Your task to perform on an android device: Check the weather Image 0: 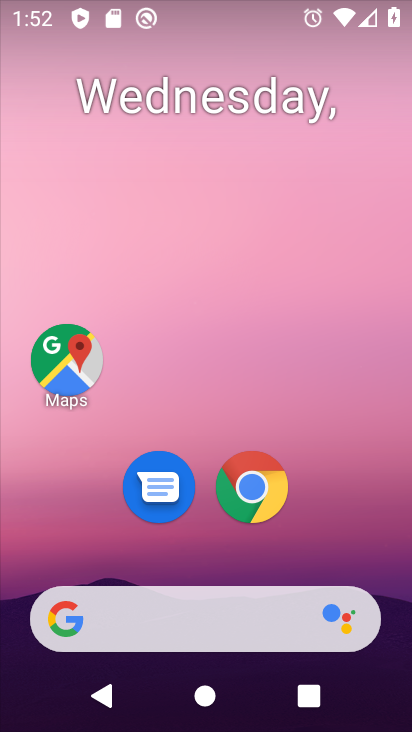
Step 0: drag from (393, 610) to (193, 50)
Your task to perform on an android device: Check the weather Image 1: 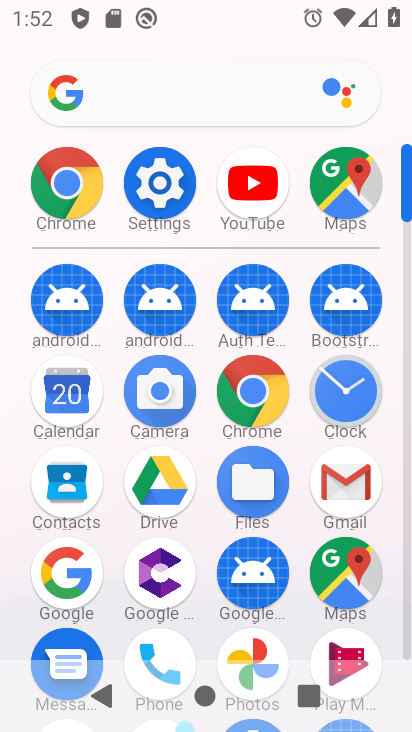
Step 1: click (74, 561)
Your task to perform on an android device: Check the weather Image 2: 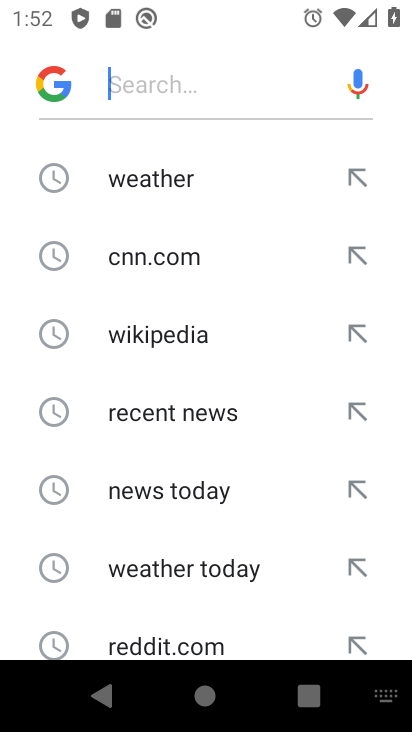
Step 2: click (189, 189)
Your task to perform on an android device: Check the weather Image 3: 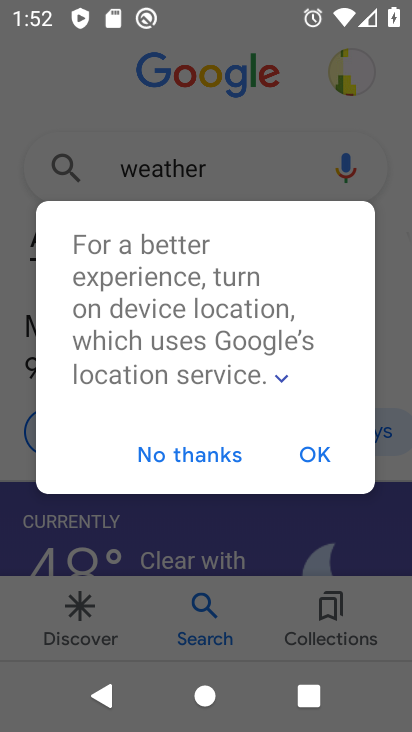
Step 3: click (197, 454)
Your task to perform on an android device: Check the weather Image 4: 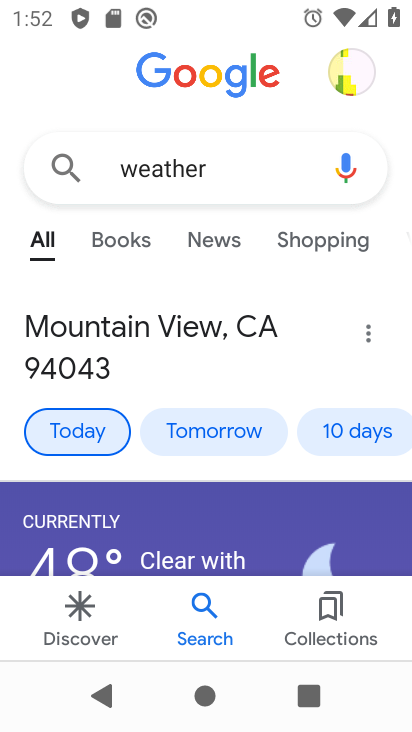
Step 4: task complete